Your task to perform on an android device: turn off airplane mode Image 0: 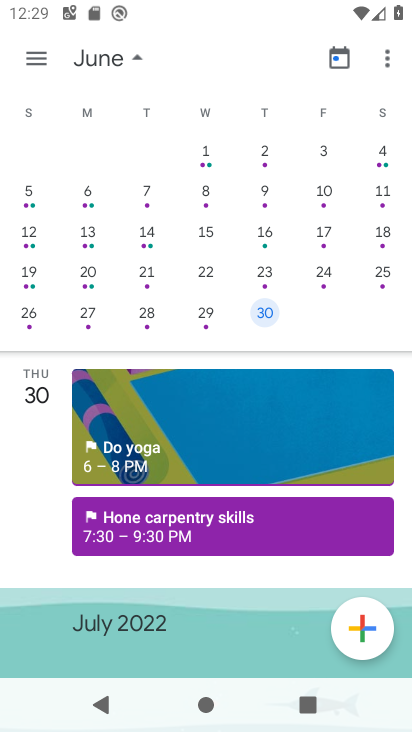
Step 0: press home button
Your task to perform on an android device: turn off airplane mode Image 1: 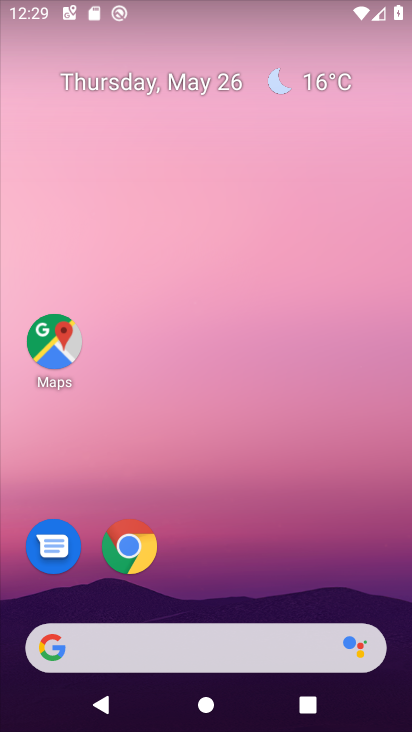
Step 1: drag from (180, 579) to (183, 282)
Your task to perform on an android device: turn off airplane mode Image 2: 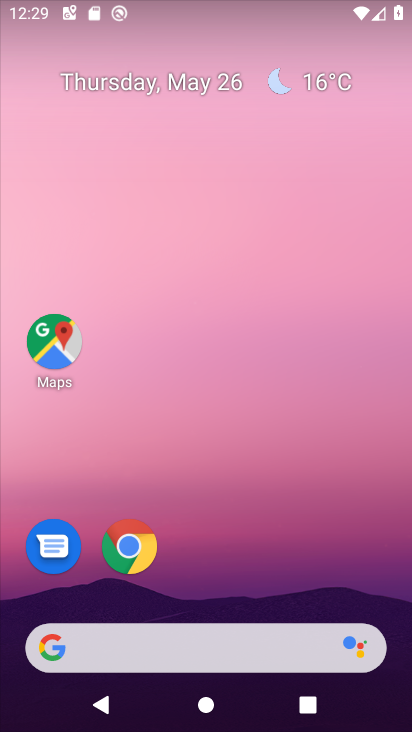
Step 2: drag from (177, 595) to (263, 145)
Your task to perform on an android device: turn off airplane mode Image 3: 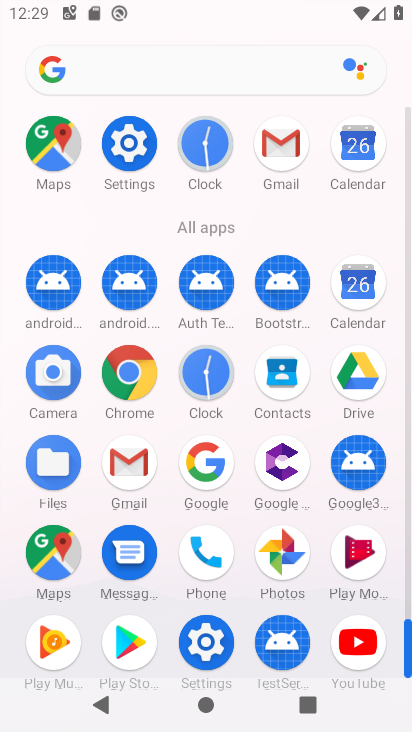
Step 3: click (123, 144)
Your task to perform on an android device: turn off airplane mode Image 4: 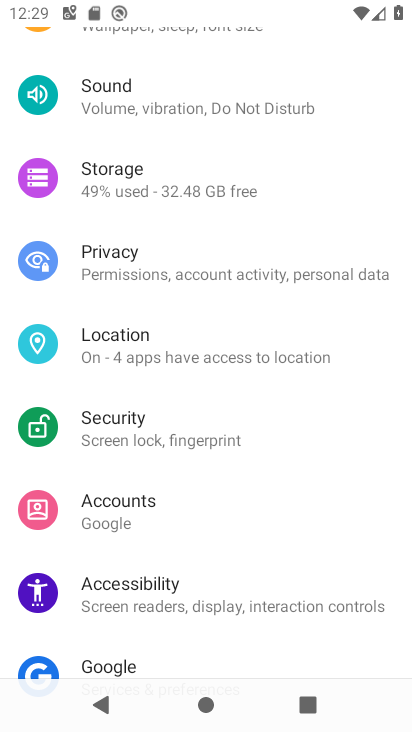
Step 4: drag from (223, 116) to (206, 667)
Your task to perform on an android device: turn off airplane mode Image 5: 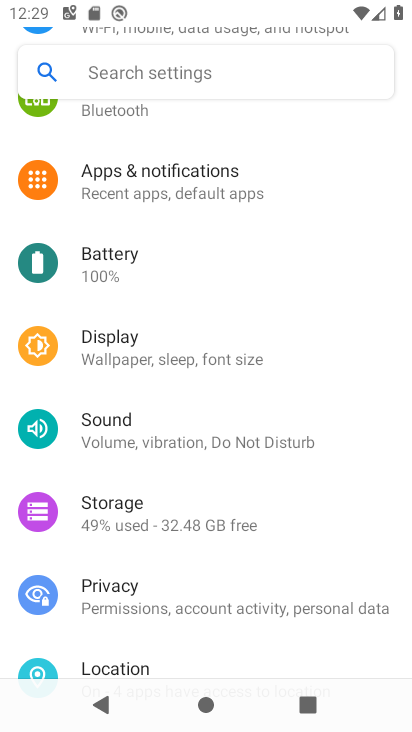
Step 5: drag from (195, 143) to (138, 622)
Your task to perform on an android device: turn off airplane mode Image 6: 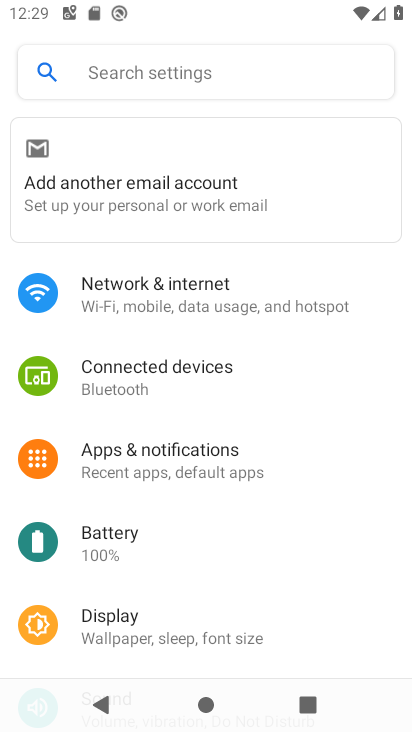
Step 6: click (157, 295)
Your task to perform on an android device: turn off airplane mode Image 7: 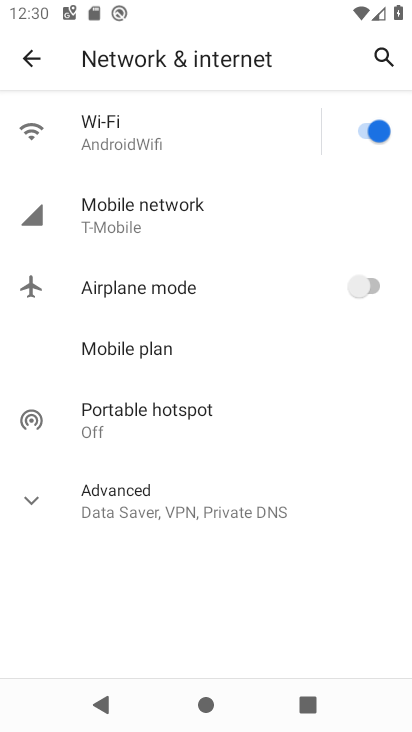
Step 7: task complete